Your task to perform on an android device: Turn off the flashlight Image 0: 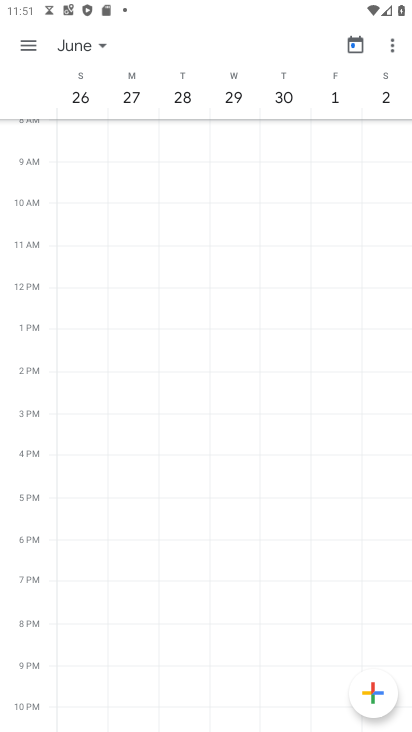
Step 0: press home button
Your task to perform on an android device: Turn off the flashlight Image 1: 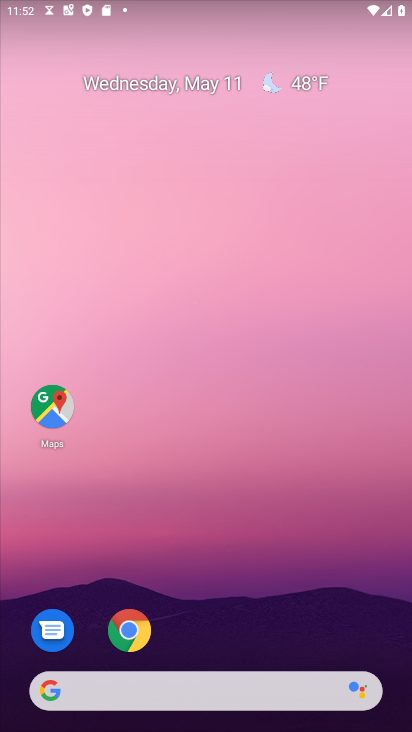
Step 1: drag from (211, 726) to (174, 151)
Your task to perform on an android device: Turn off the flashlight Image 2: 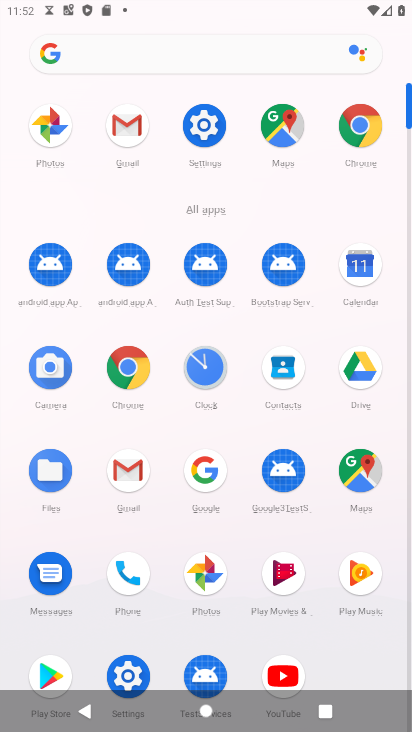
Step 2: click (209, 119)
Your task to perform on an android device: Turn off the flashlight Image 3: 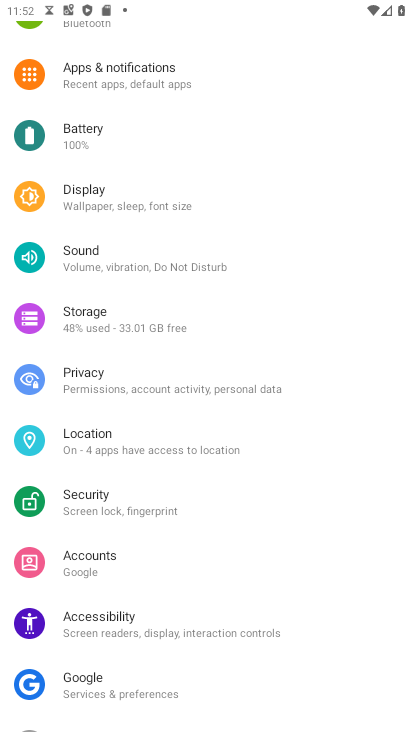
Step 3: task complete